Your task to perform on an android device: Do I have any events today? Image 0: 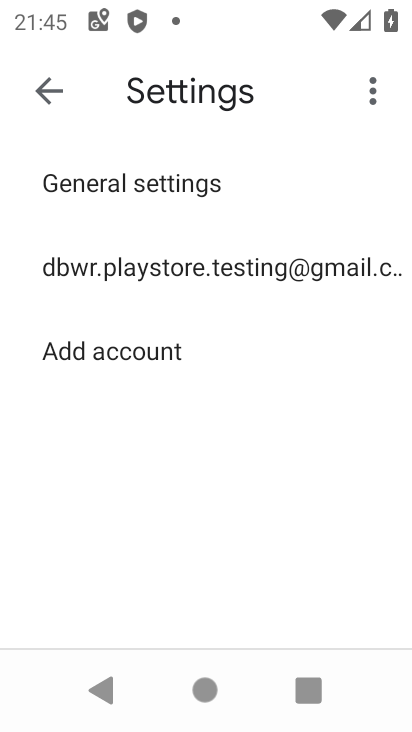
Step 0: press home button
Your task to perform on an android device: Do I have any events today? Image 1: 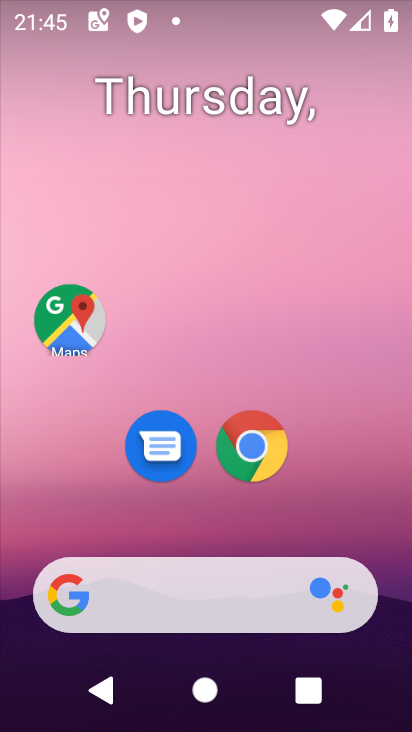
Step 1: drag from (402, 614) to (384, 516)
Your task to perform on an android device: Do I have any events today? Image 2: 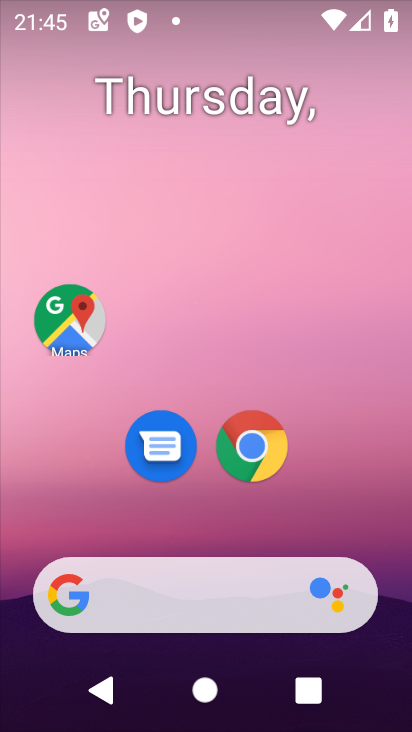
Step 2: drag from (384, 516) to (359, 191)
Your task to perform on an android device: Do I have any events today? Image 3: 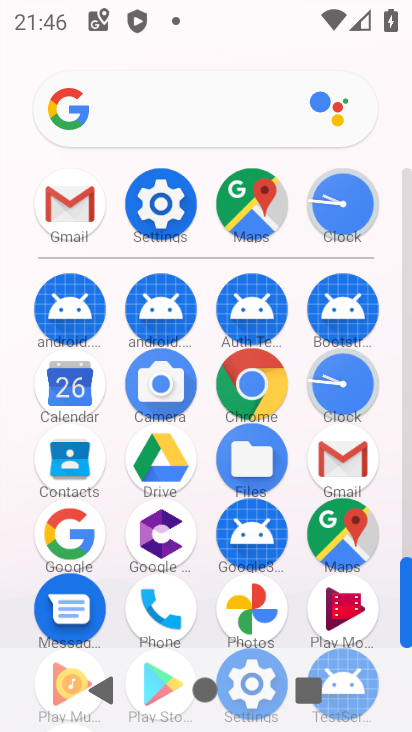
Step 3: click (64, 378)
Your task to perform on an android device: Do I have any events today? Image 4: 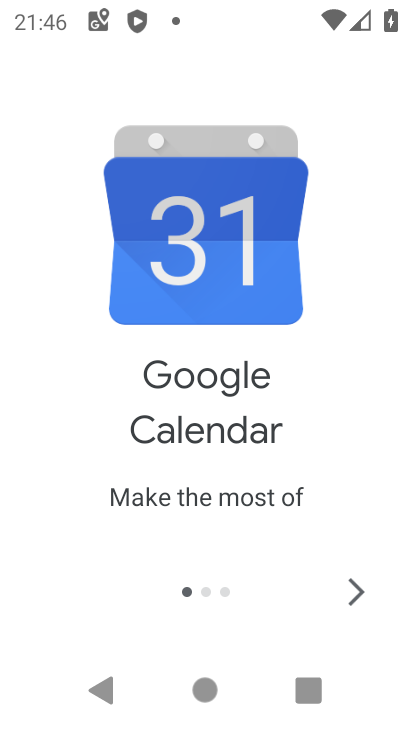
Step 4: click (356, 587)
Your task to perform on an android device: Do I have any events today? Image 5: 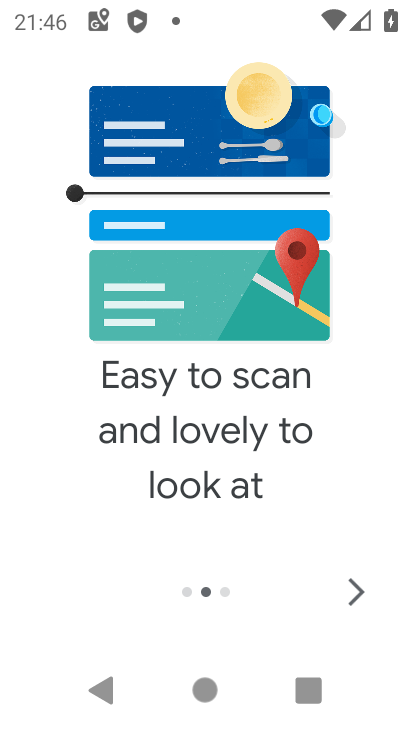
Step 5: click (356, 587)
Your task to perform on an android device: Do I have any events today? Image 6: 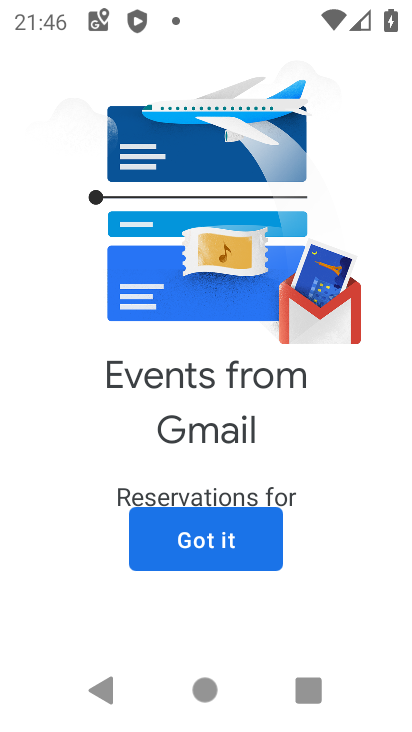
Step 6: click (206, 551)
Your task to perform on an android device: Do I have any events today? Image 7: 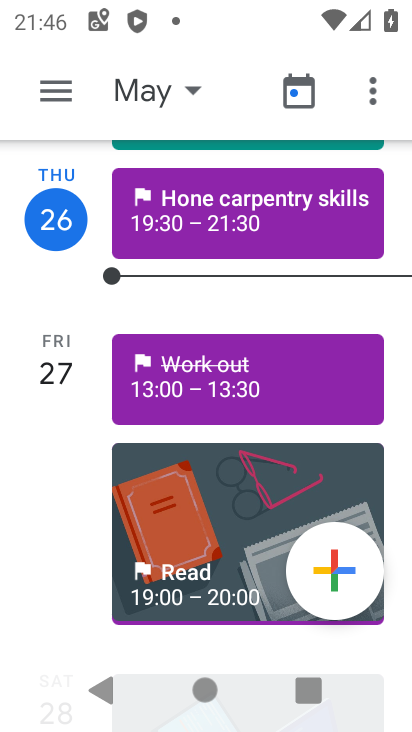
Step 7: click (185, 87)
Your task to perform on an android device: Do I have any events today? Image 8: 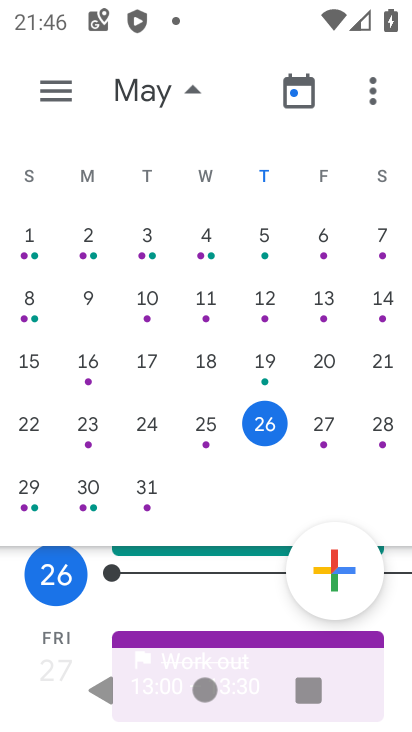
Step 8: click (315, 420)
Your task to perform on an android device: Do I have any events today? Image 9: 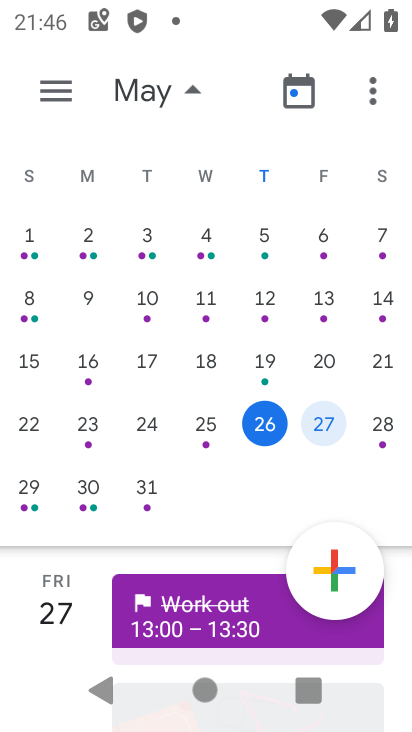
Step 9: click (186, 95)
Your task to perform on an android device: Do I have any events today? Image 10: 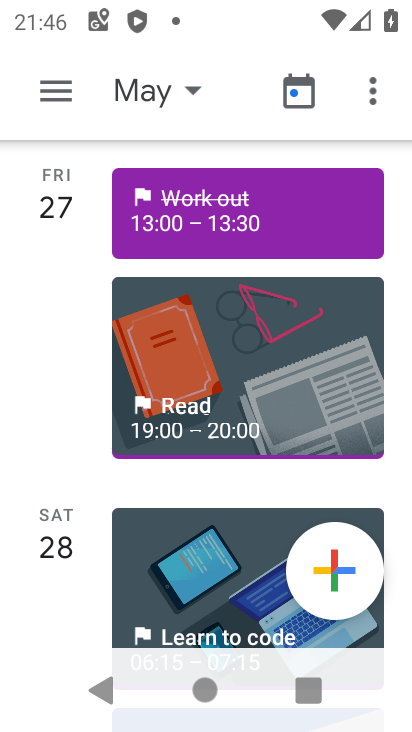
Step 10: task complete